Your task to perform on an android device: check google app version Image 0: 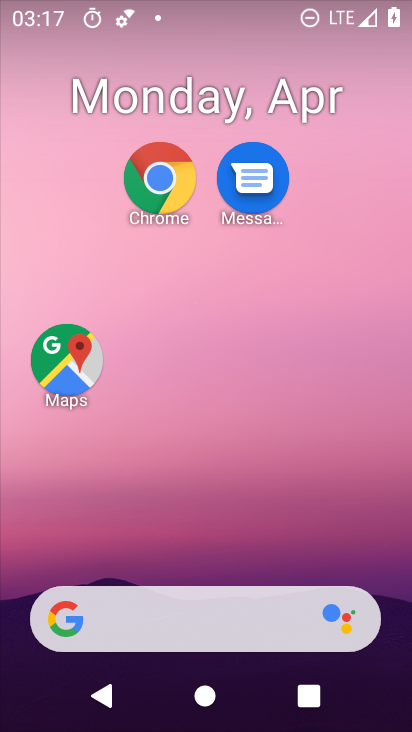
Step 0: drag from (308, 576) to (294, 2)
Your task to perform on an android device: check google app version Image 1: 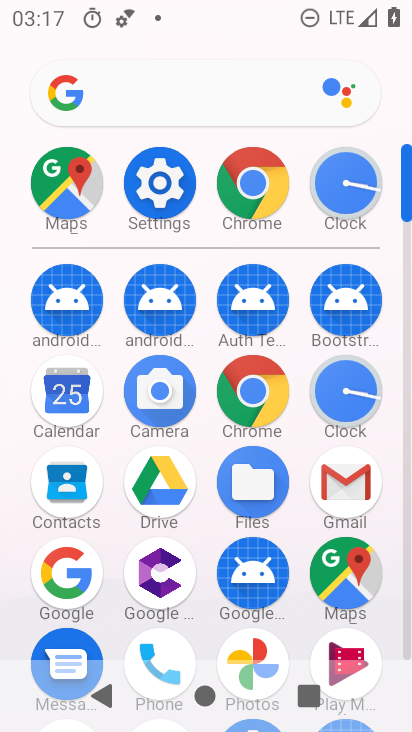
Step 1: drag from (195, 607) to (193, 212)
Your task to perform on an android device: check google app version Image 2: 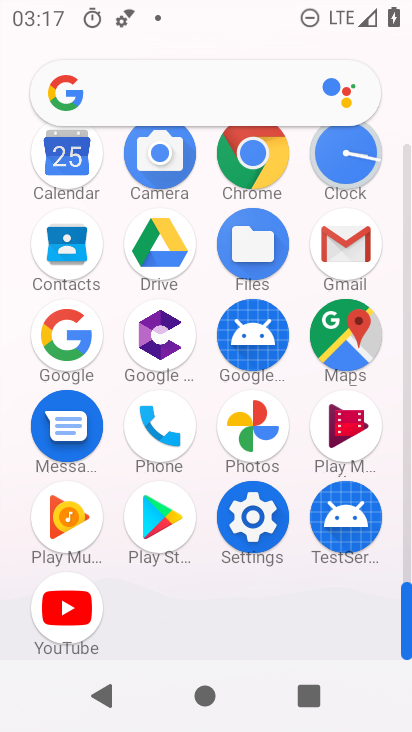
Step 2: click (257, 529)
Your task to perform on an android device: check google app version Image 3: 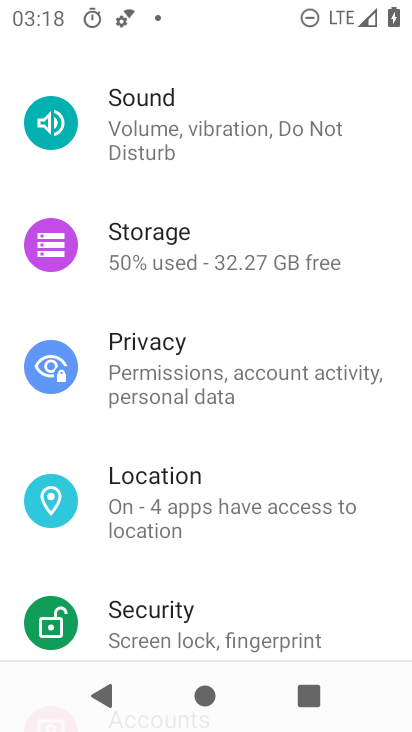
Step 3: press home button
Your task to perform on an android device: check google app version Image 4: 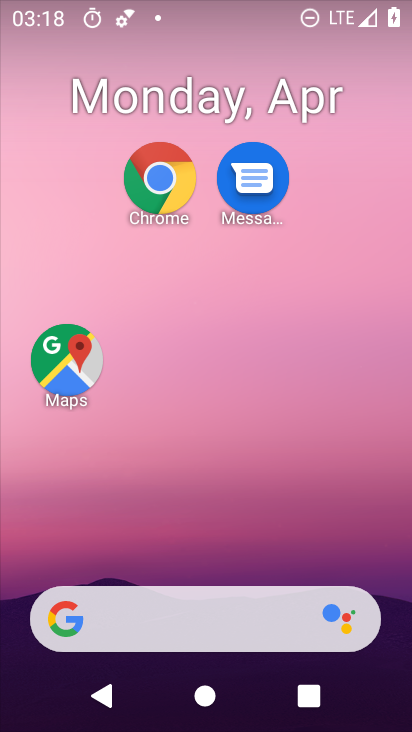
Step 4: drag from (231, 603) to (246, 1)
Your task to perform on an android device: check google app version Image 5: 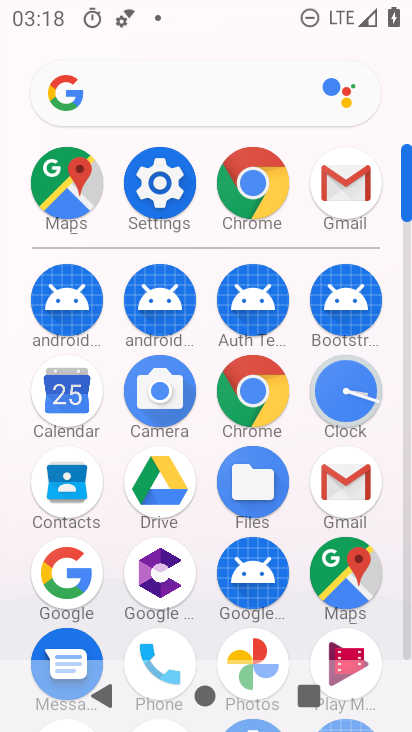
Step 5: click (234, 391)
Your task to perform on an android device: check google app version Image 6: 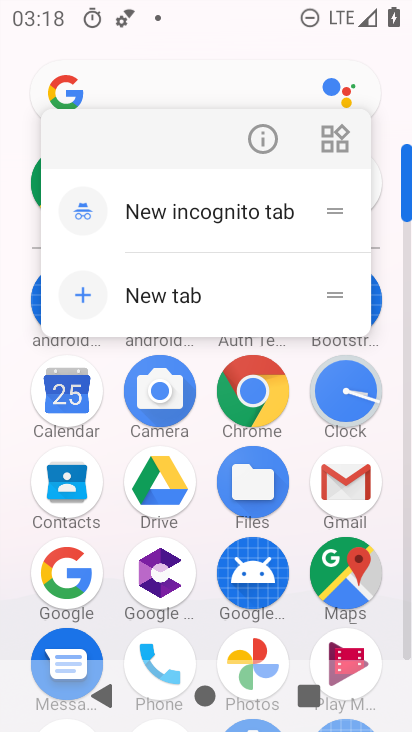
Step 6: click (241, 401)
Your task to perform on an android device: check google app version Image 7: 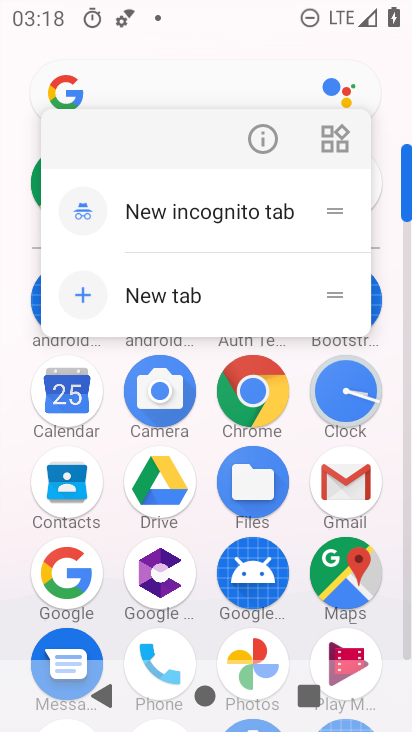
Step 7: click (255, 398)
Your task to perform on an android device: check google app version Image 8: 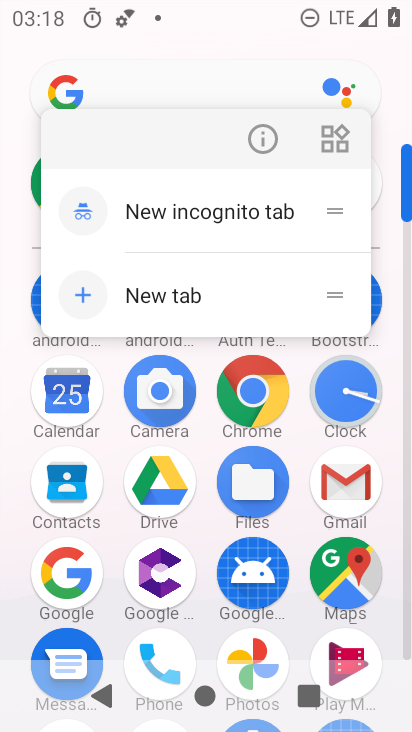
Step 8: click (255, 398)
Your task to perform on an android device: check google app version Image 9: 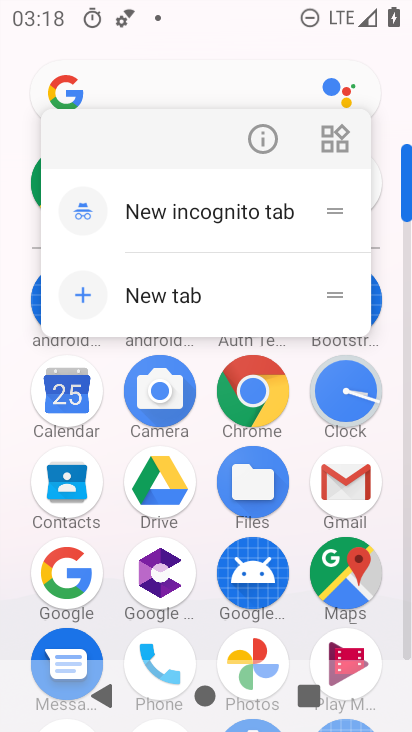
Step 9: click (255, 398)
Your task to perform on an android device: check google app version Image 10: 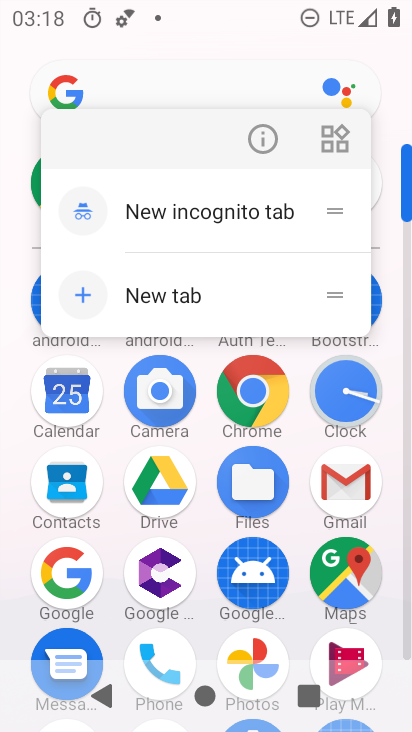
Step 10: click (255, 398)
Your task to perform on an android device: check google app version Image 11: 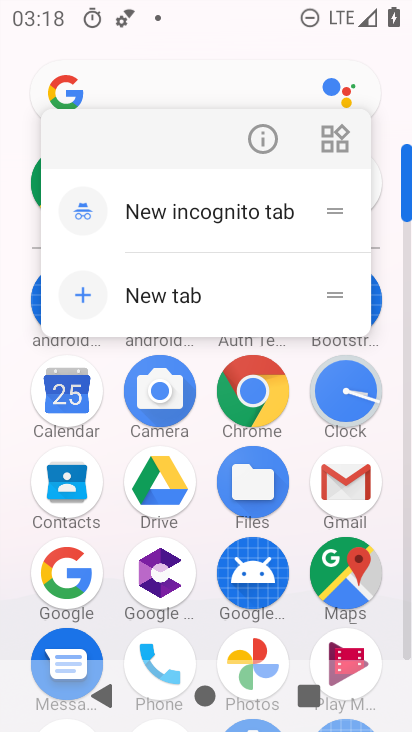
Step 11: click (255, 398)
Your task to perform on an android device: check google app version Image 12: 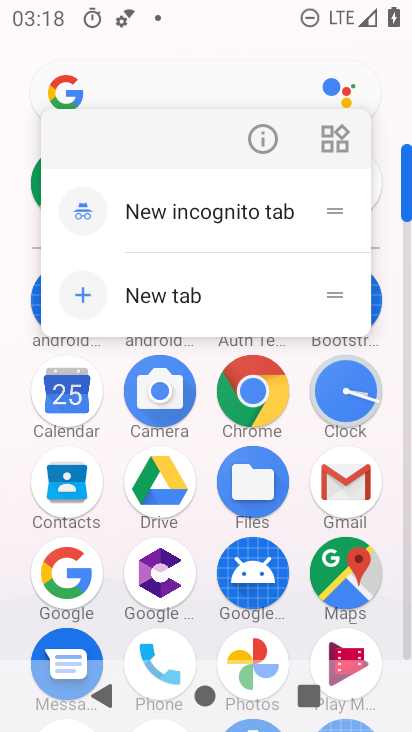
Step 12: click (255, 398)
Your task to perform on an android device: check google app version Image 13: 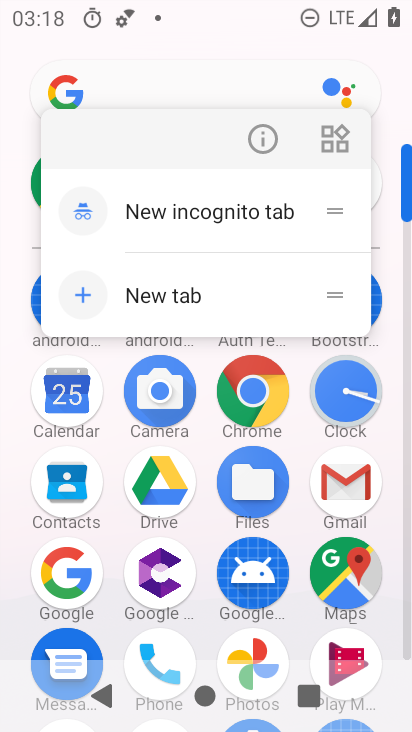
Step 13: click (278, 390)
Your task to perform on an android device: check google app version Image 14: 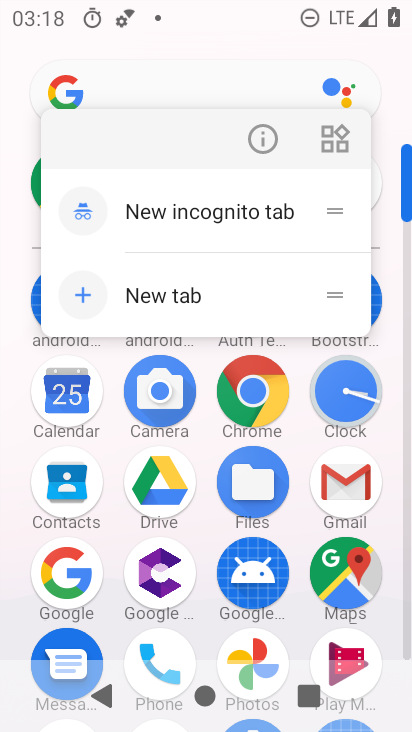
Step 14: click (278, 390)
Your task to perform on an android device: check google app version Image 15: 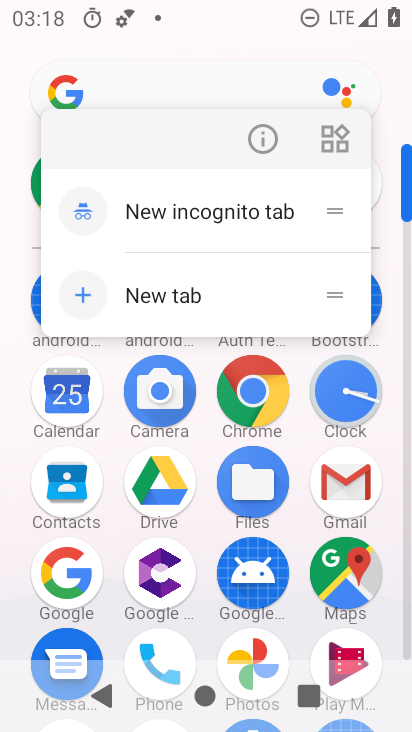
Step 15: click (278, 390)
Your task to perform on an android device: check google app version Image 16: 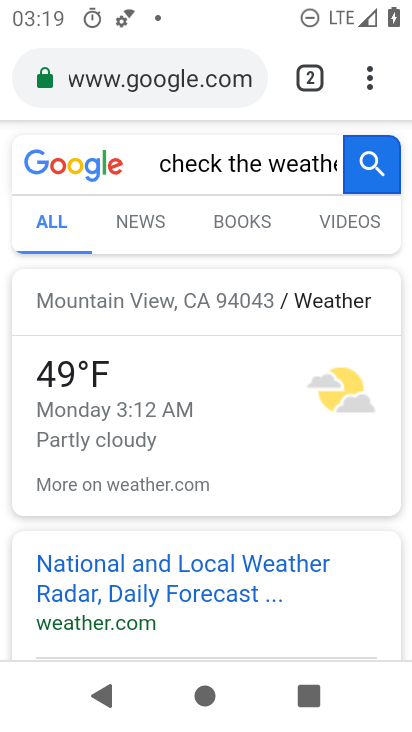
Step 16: drag from (365, 75) to (196, 617)
Your task to perform on an android device: check google app version Image 17: 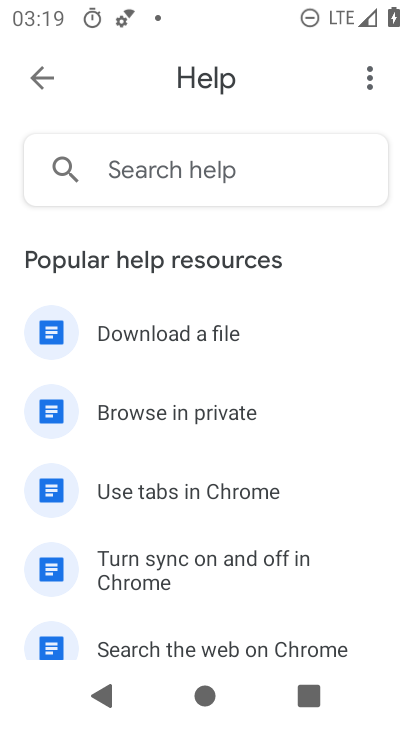
Step 17: click (368, 83)
Your task to perform on an android device: check google app version Image 18: 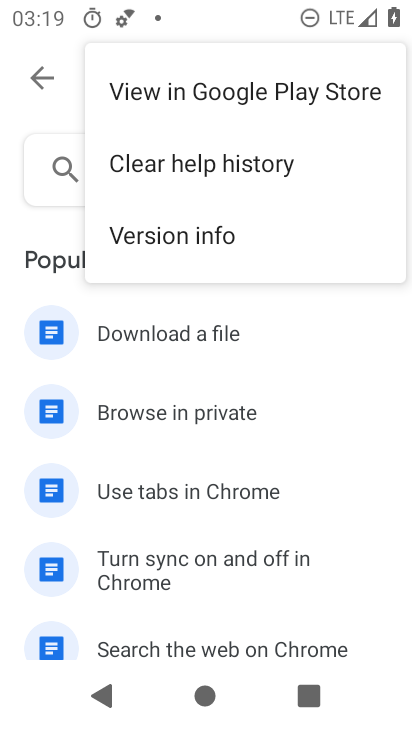
Step 18: click (224, 234)
Your task to perform on an android device: check google app version Image 19: 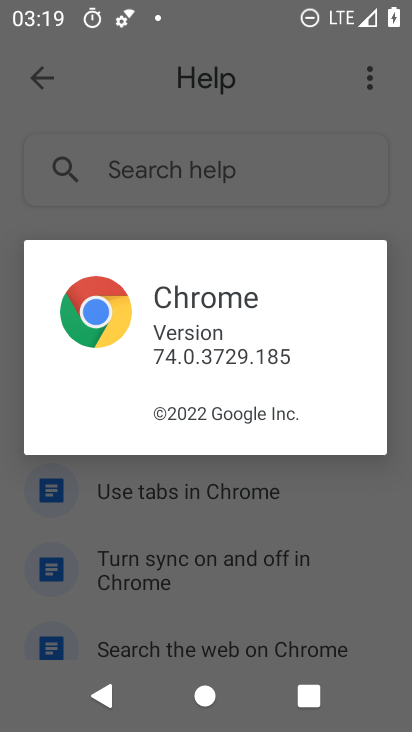
Step 19: task complete